Your task to perform on an android device: see sites visited before in the chrome app Image 0: 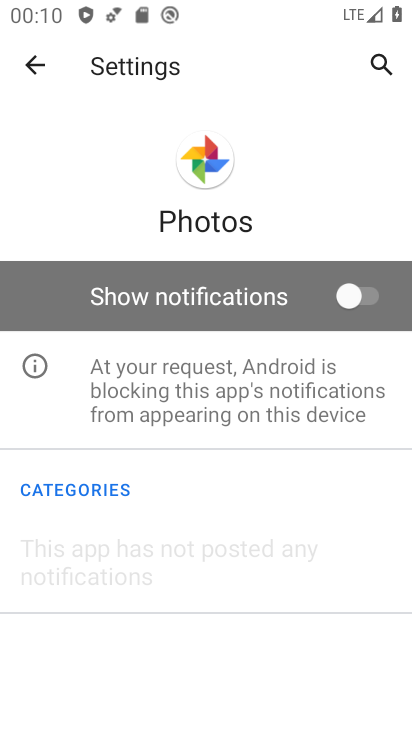
Step 0: drag from (223, 627) to (154, 76)
Your task to perform on an android device: see sites visited before in the chrome app Image 1: 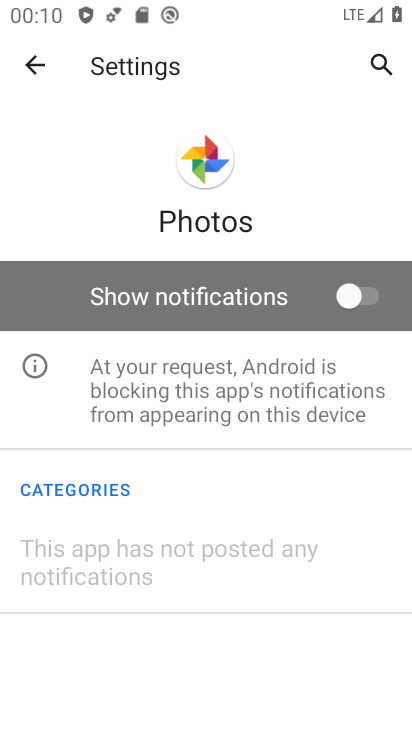
Step 1: press home button
Your task to perform on an android device: see sites visited before in the chrome app Image 2: 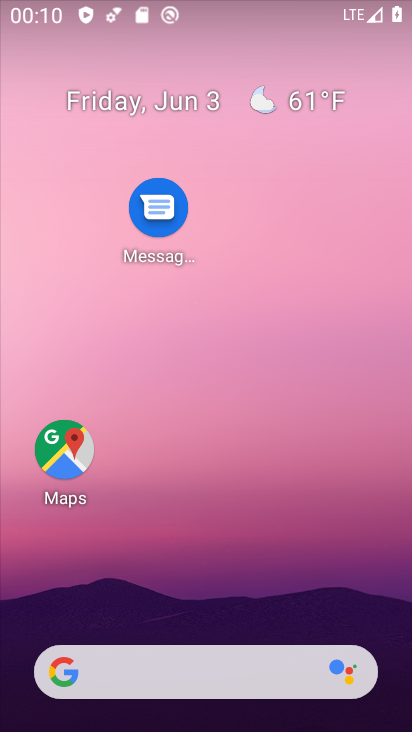
Step 2: drag from (181, 637) to (322, 40)
Your task to perform on an android device: see sites visited before in the chrome app Image 3: 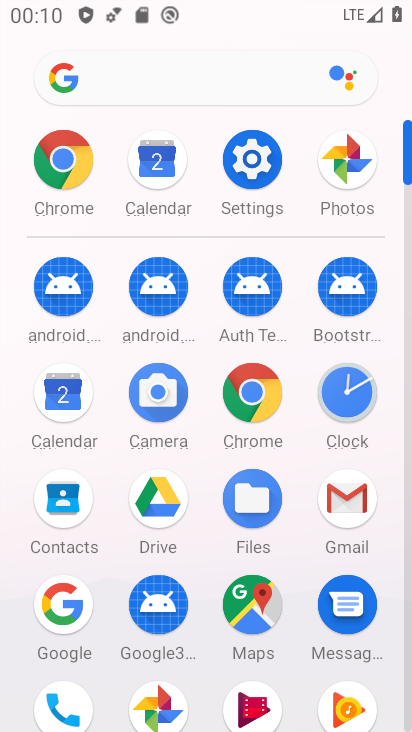
Step 3: click (266, 394)
Your task to perform on an android device: see sites visited before in the chrome app Image 4: 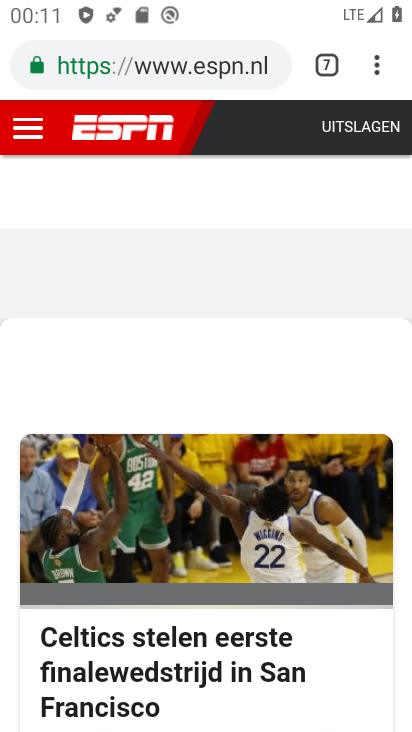
Step 4: click (315, 57)
Your task to perform on an android device: see sites visited before in the chrome app Image 5: 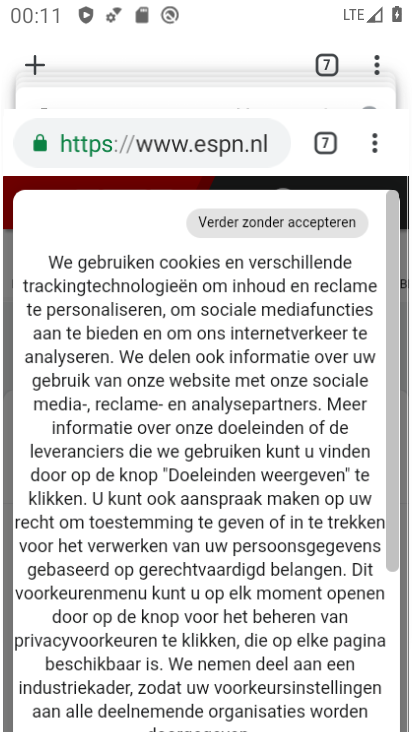
Step 5: task complete